Your task to perform on an android device: turn notification dots off Image 0: 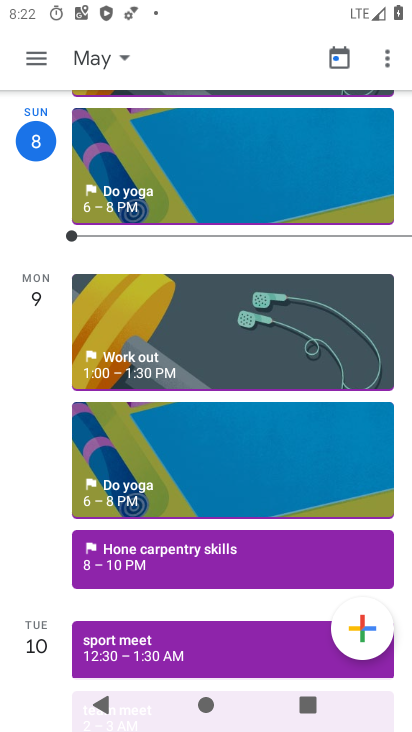
Step 0: press home button
Your task to perform on an android device: turn notification dots off Image 1: 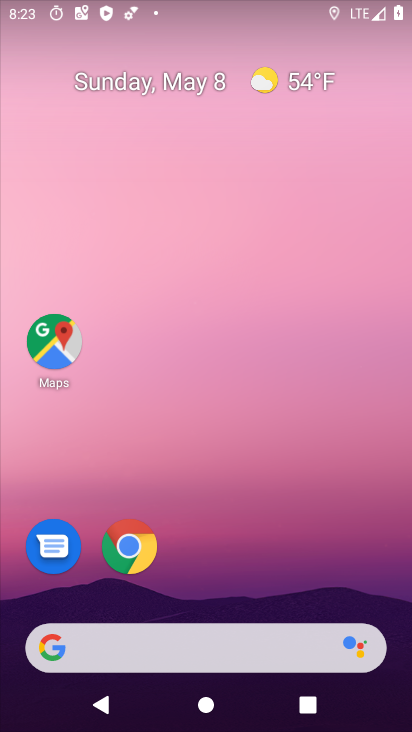
Step 1: drag from (401, 592) to (399, 196)
Your task to perform on an android device: turn notification dots off Image 2: 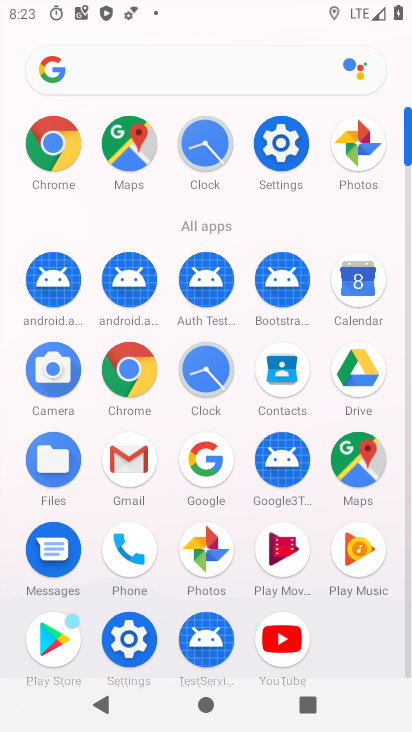
Step 2: click (276, 145)
Your task to perform on an android device: turn notification dots off Image 3: 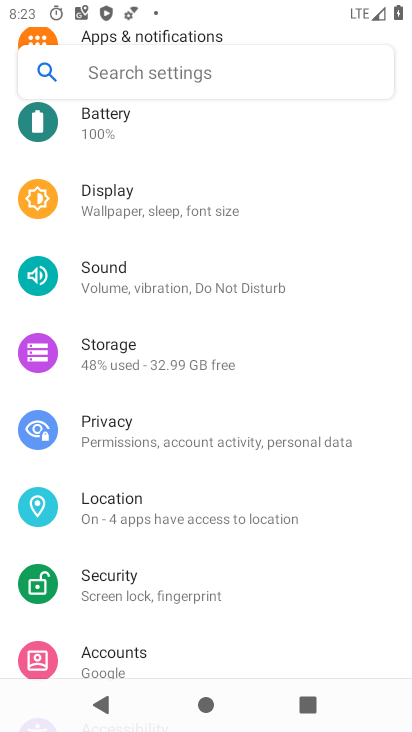
Step 3: drag from (274, 163) to (293, 521)
Your task to perform on an android device: turn notification dots off Image 4: 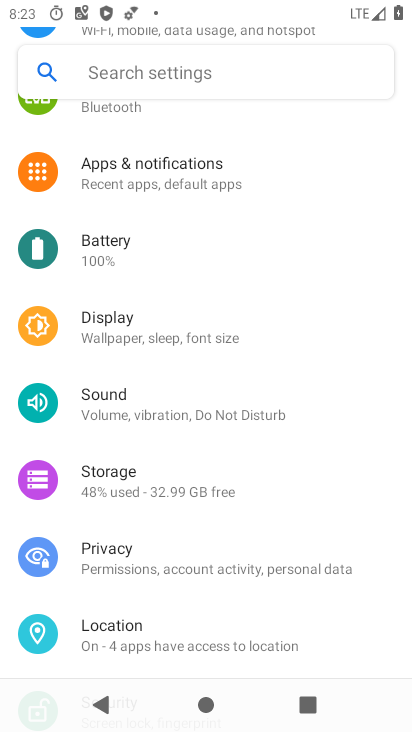
Step 4: click (169, 174)
Your task to perform on an android device: turn notification dots off Image 5: 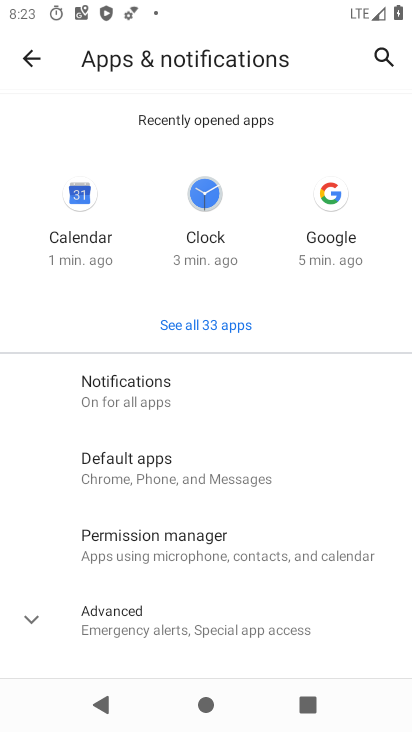
Step 5: click (137, 383)
Your task to perform on an android device: turn notification dots off Image 6: 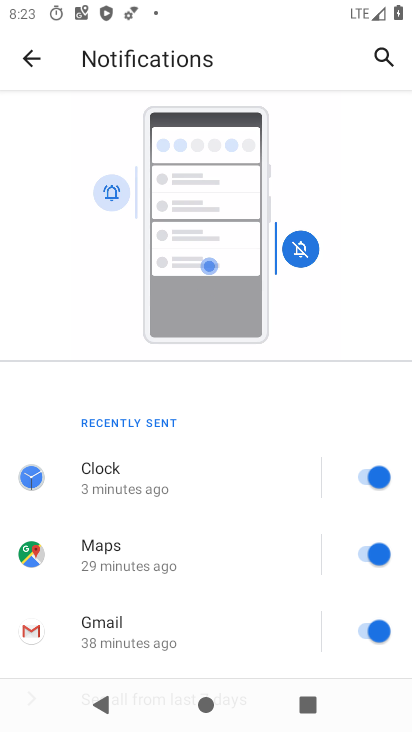
Step 6: drag from (273, 630) to (242, 196)
Your task to perform on an android device: turn notification dots off Image 7: 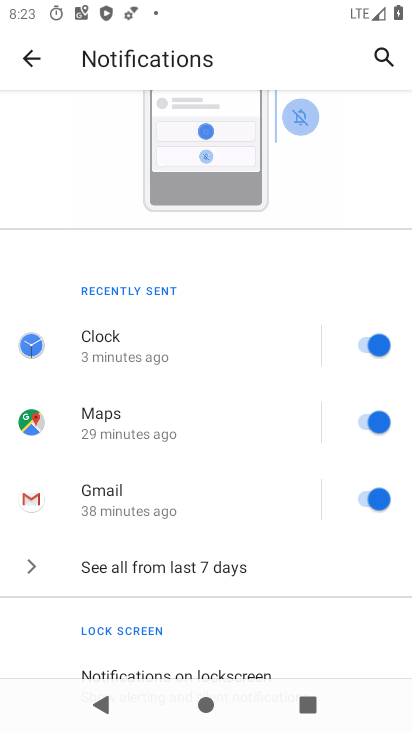
Step 7: drag from (270, 603) to (284, 303)
Your task to perform on an android device: turn notification dots off Image 8: 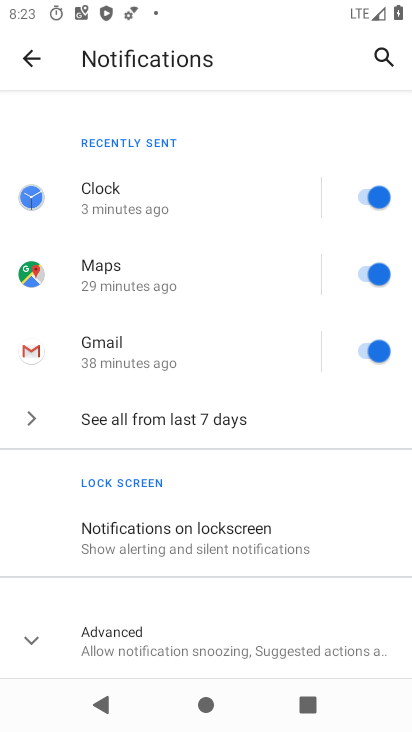
Step 8: click (209, 535)
Your task to perform on an android device: turn notification dots off Image 9: 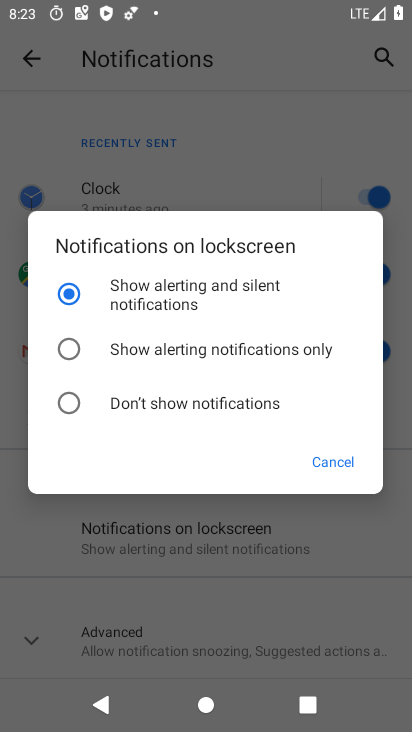
Step 9: click (62, 400)
Your task to perform on an android device: turn notification dots off Image 10: 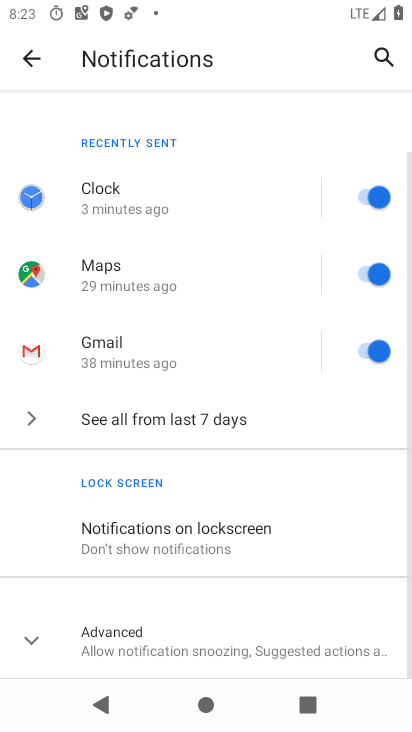
Step 10: task complete